Your task to perform on an android device: turn on sleep mode Image 0: 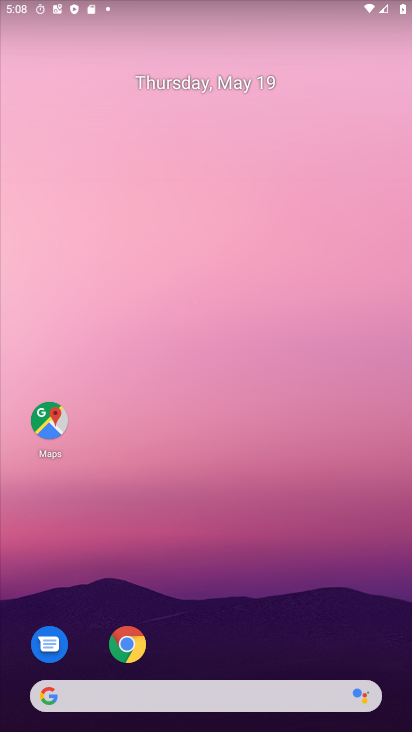
Step 0: drag from (147, 668) to (205, 118)
Your task to perform on an android device: turn on sleep mode Image 1: 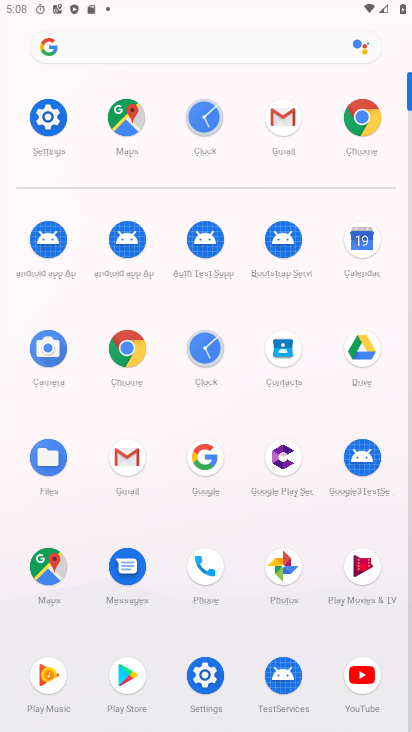
Step 1: click (53, 120)
Your task to perform on an android device: turn on sleep mode Image 2: 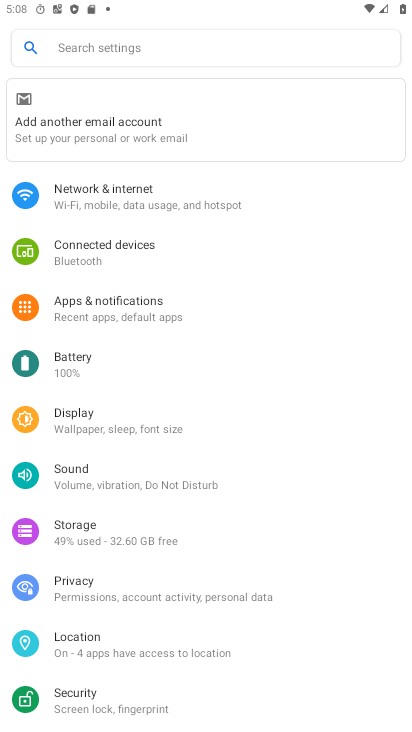
Step 2: click (90, 440)
Your task to perform on an android device: turn on sleep mode Image 3: 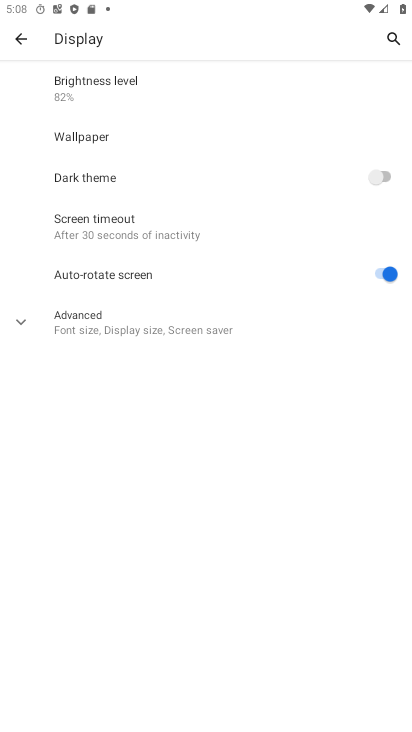
Step 3: click (91, 328)
Your task to perform on an android device: turn on sleep mode Image 4: 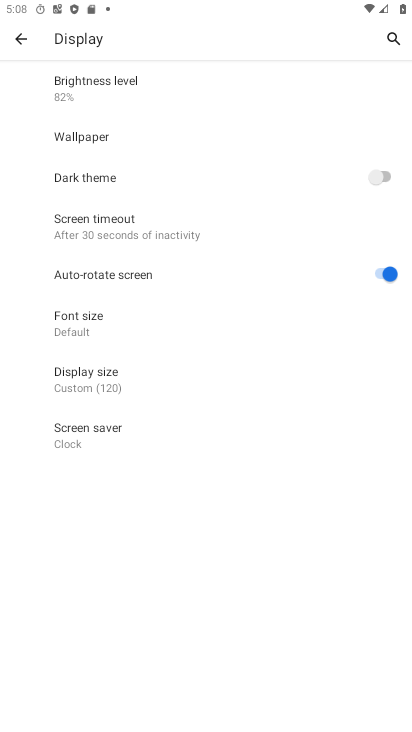
Step 4: click (97, 237)
Your task to perform on an android device: turn on sleep mode Image 5: 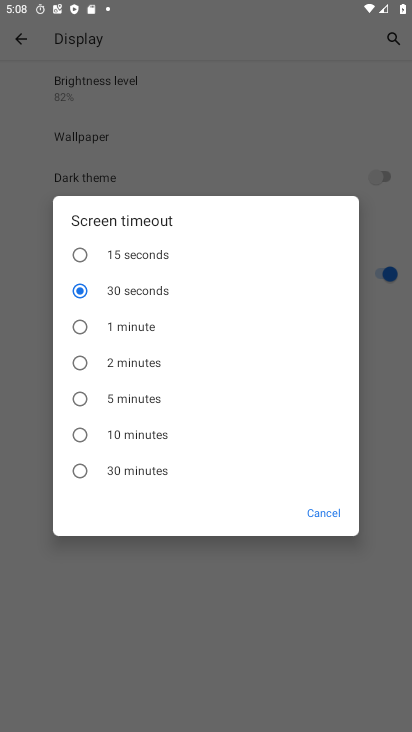
Step 5: click (133, 251)
Your task to perform on an android device: turn on sleep mode Image 6: 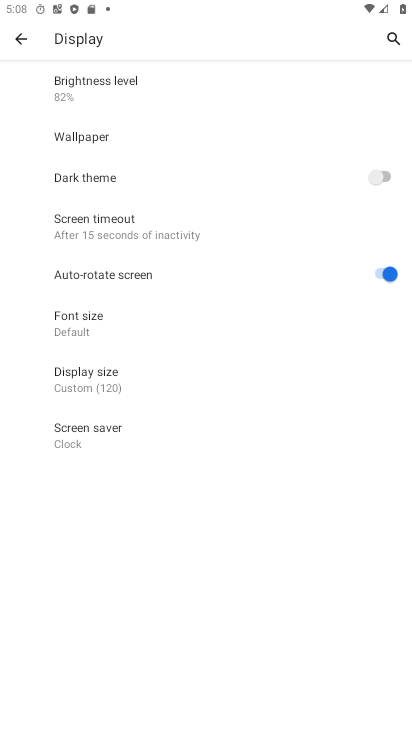
Step 6: task complete